Your task to perform on an android device: turn off priority inbox in the gmail app Image 0: 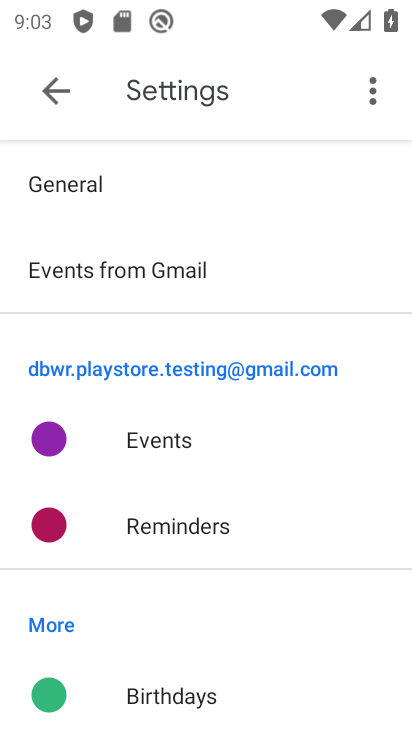
Step 0: press home button
Your task to perform on an android device: turn off priority inbox in the gmail app Image 1: 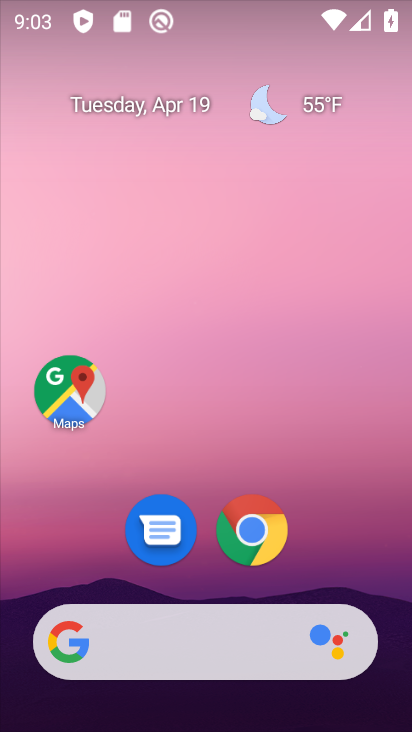
Step 1: drag from (204, 412) to (228, 0)
Your task to perform on an android device: turn off priority inbox in the gmail app Image 2: 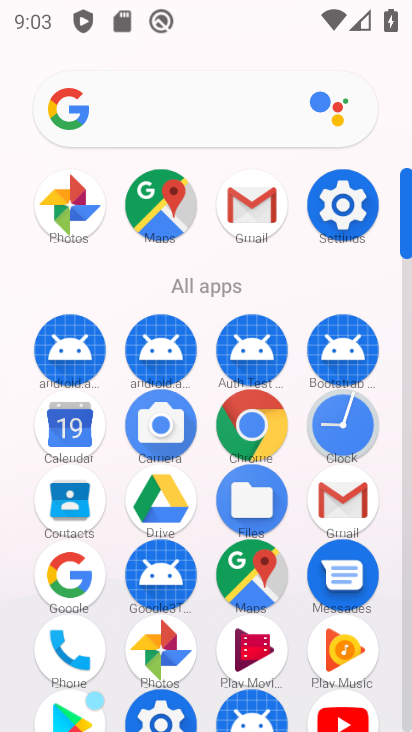
Step 2: click (247, 206)
Your task to perform on an android device: turn off priority inbox in the gmail app Image 3: 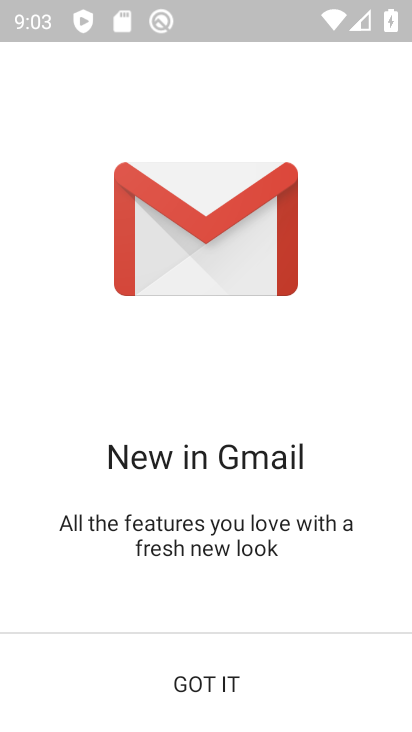
Step 3: click (184, 688)
Your task to perform on an android device: turn off priority inbox in the gmail app Image 4: 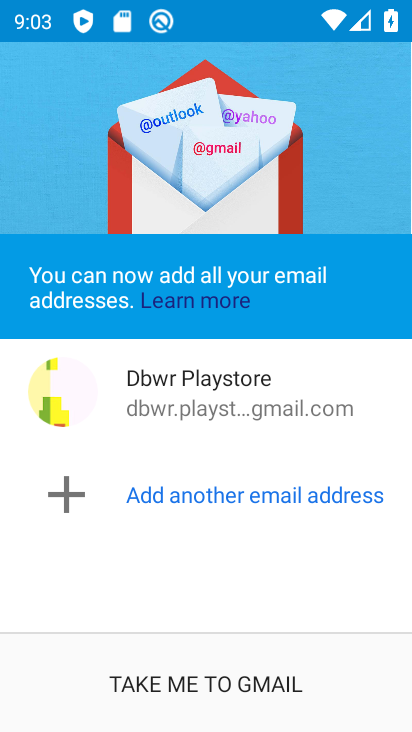
Step 4: click (199, 683)
Your task to perform on an android device: turn off priority inbox in the gmail app Image 5: 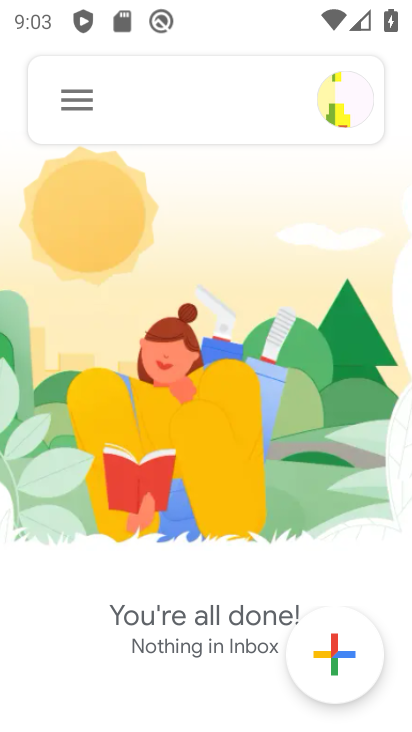
Step 5: click (67, 97)
Your task to perform on an android device: turn off priority inbox in the gmail app Image 6: 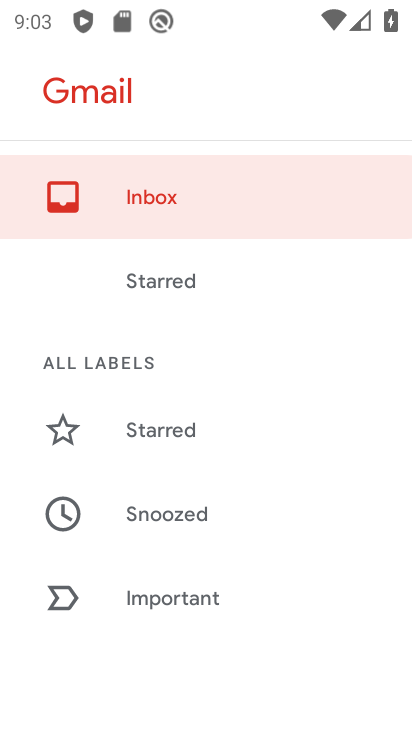
Step 6: drag from (254, 515) to (280, 85)
Your task to perform on an android device: turn off priority inbox in the gmail app Image 7: 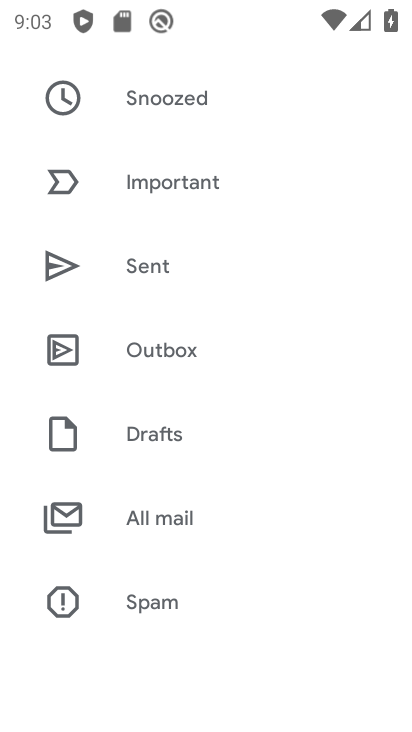
Step 7: drag from (253, 574) to (241, 107)
Your task to perform on an android device: turn off priority inbox in the gmail app Image 8: 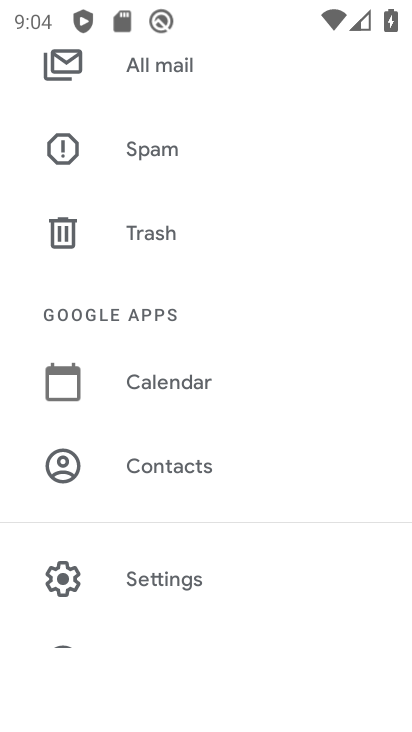
Step 8: click (132, 582)
Your task to perform on an android device: turn off priority inbox in the gmail app Image 9: 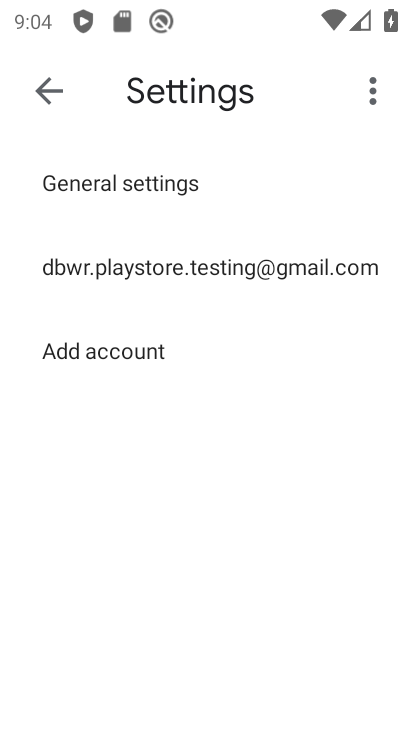
Step 9: click (135, 262)
Your task to perform on an android device: turn off priority inbox in the gmail app Image 10: 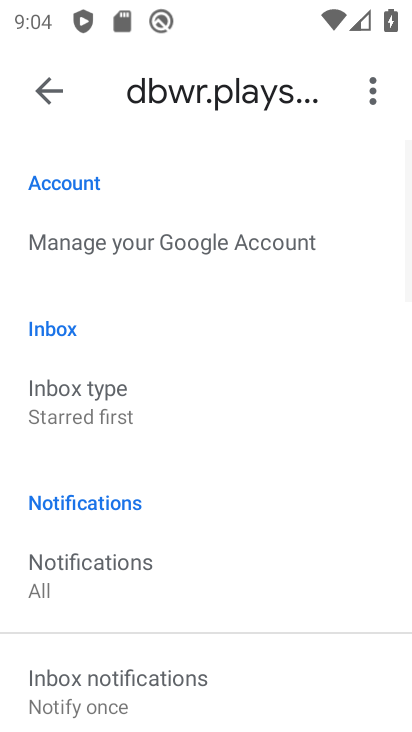
Step 10: drag from (234, 592) to (242, 484)
Your task to perform on an android device: turn off priority inbox in the gmail app Image 11: 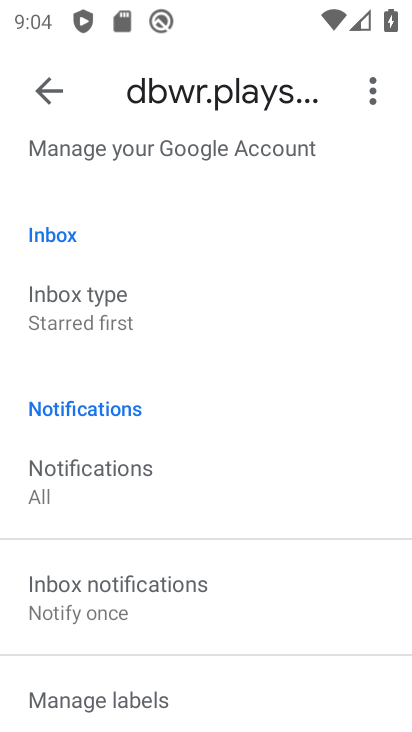
Step 11: click (97, 307)
Your task to perform on an android device: turn off priority inbox in the gmail app Image 12: 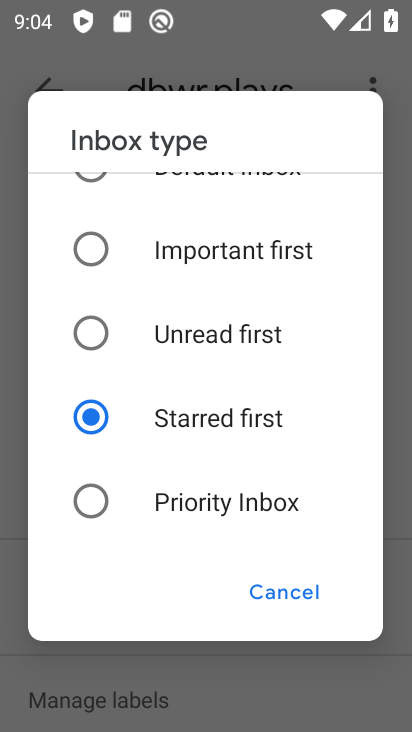
Step 12: task complete